Your task to perform on an android device: open app "Walmart Shopping & Grocery" Image 0: 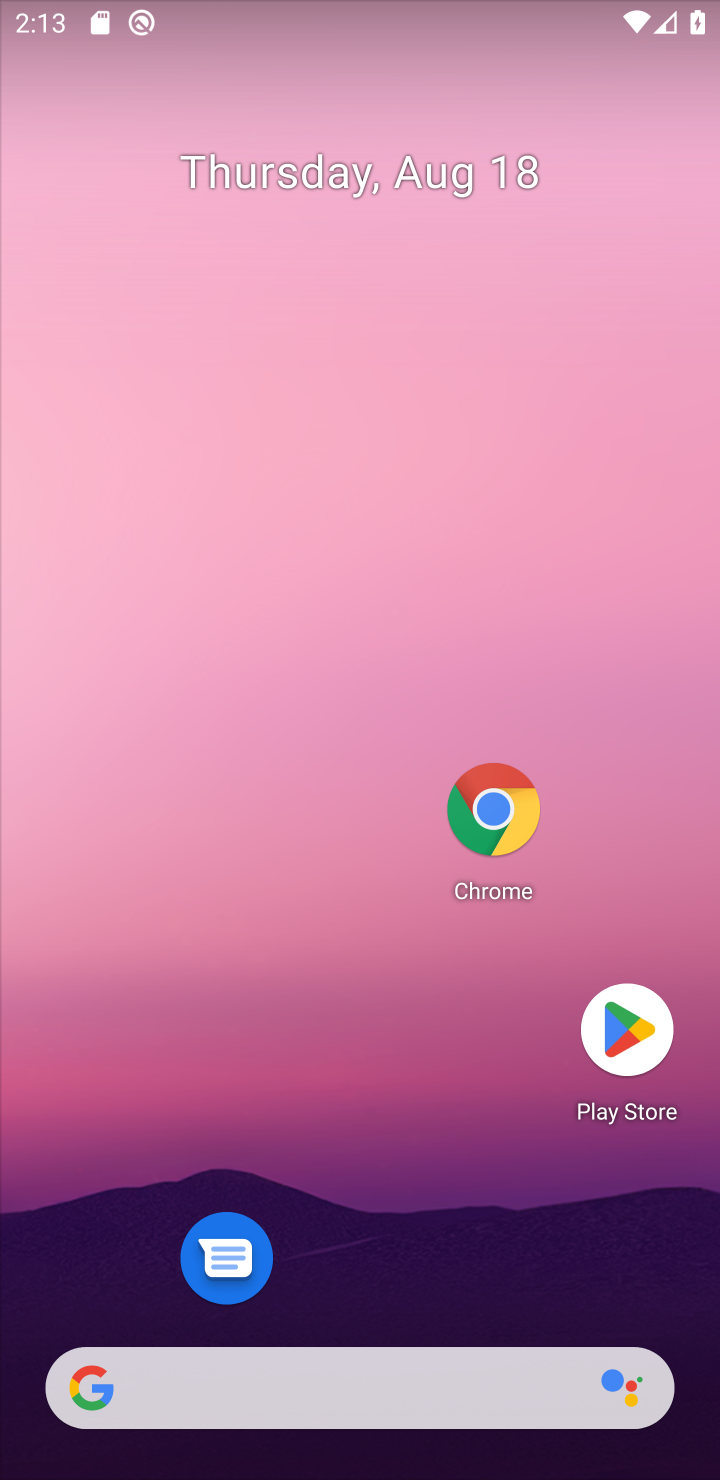
Step 0: drag from (500, 1068) to (460, 287)
Your task to perform on an android device: open app "Walmart Shopping & Grocery" Image 1: 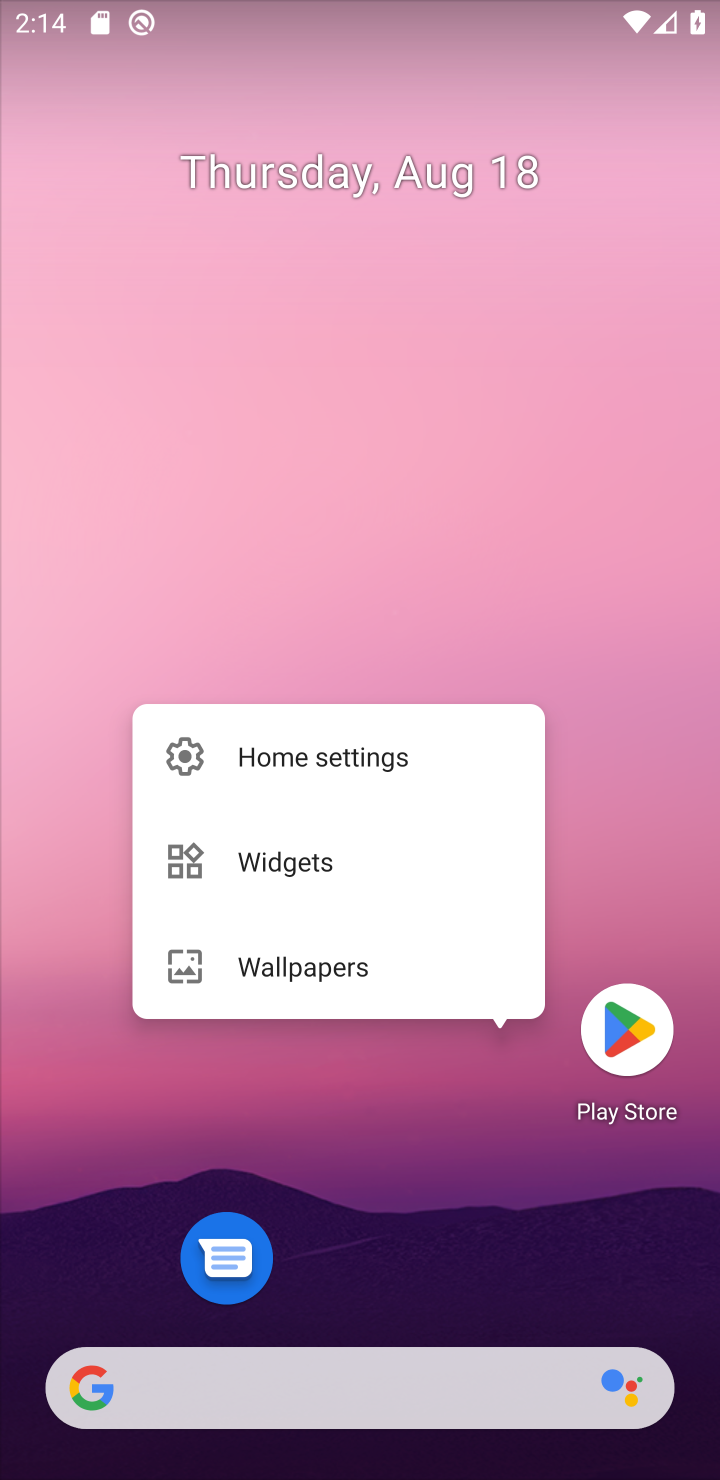
Step 1: click (489, 434)
Your task to perform on an android device: open app "Walmart Shopping & Grocery" Image 2: 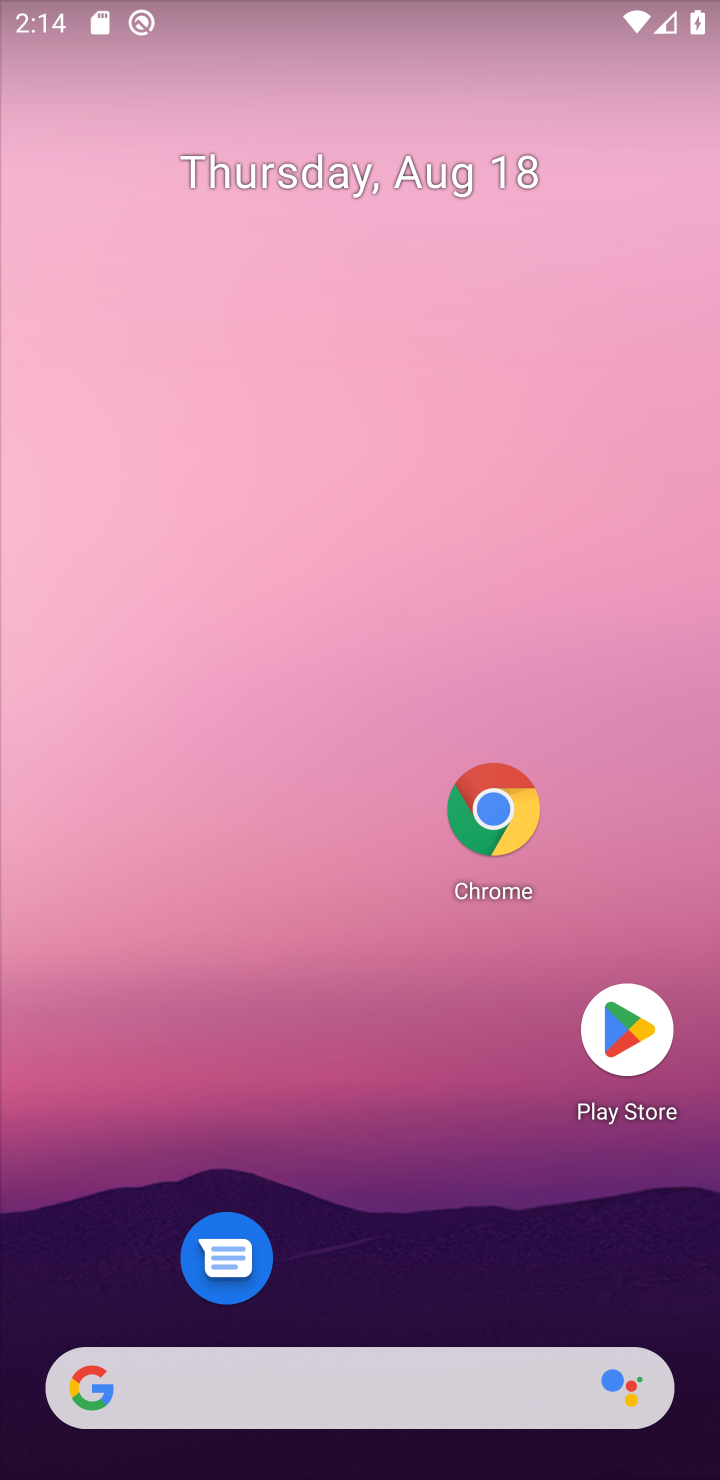
Step 2: click (652, 1045)
Your task to perform on an android device: open app "Walmart Shopping & Grocery" Image 3: 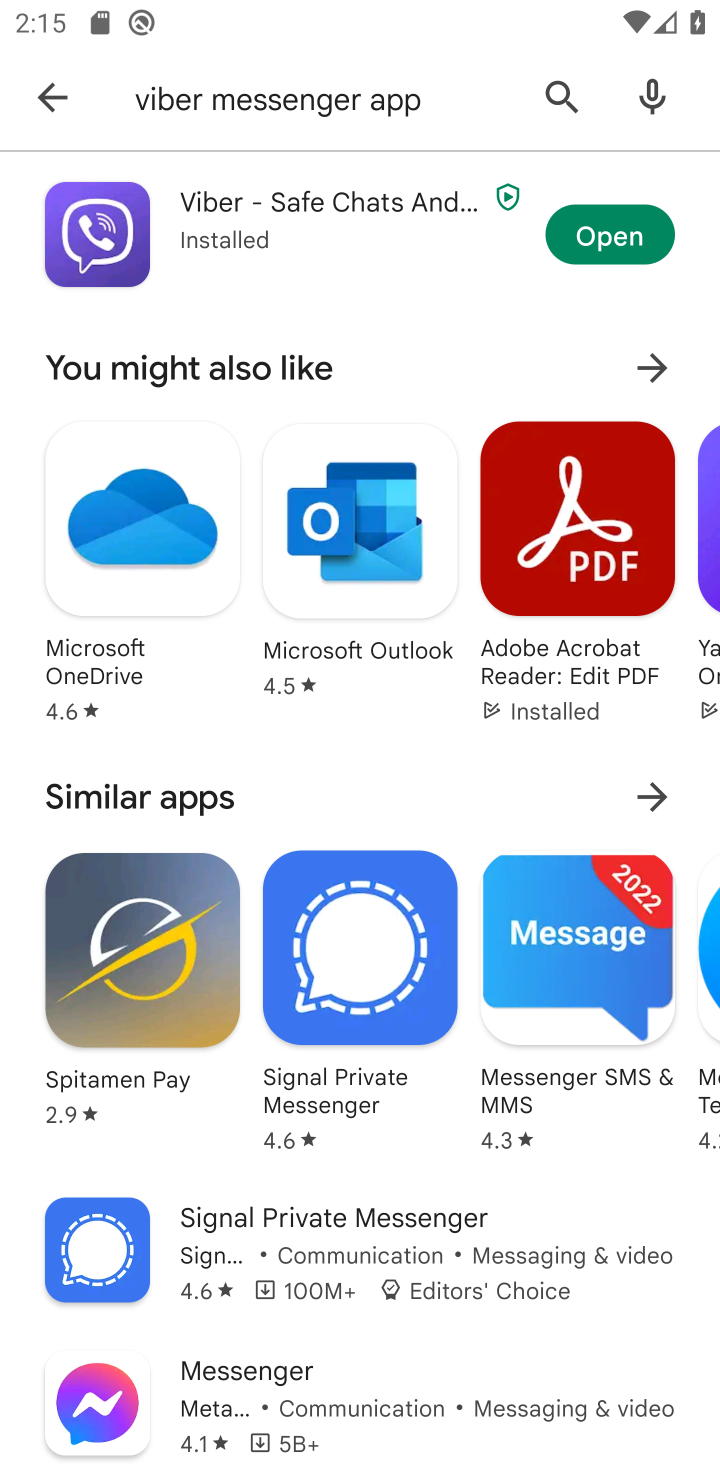
Step 3: click (54, 84)
Your task to perform on an android device: open app "Walmart Shopping & Grocery" Image 4: 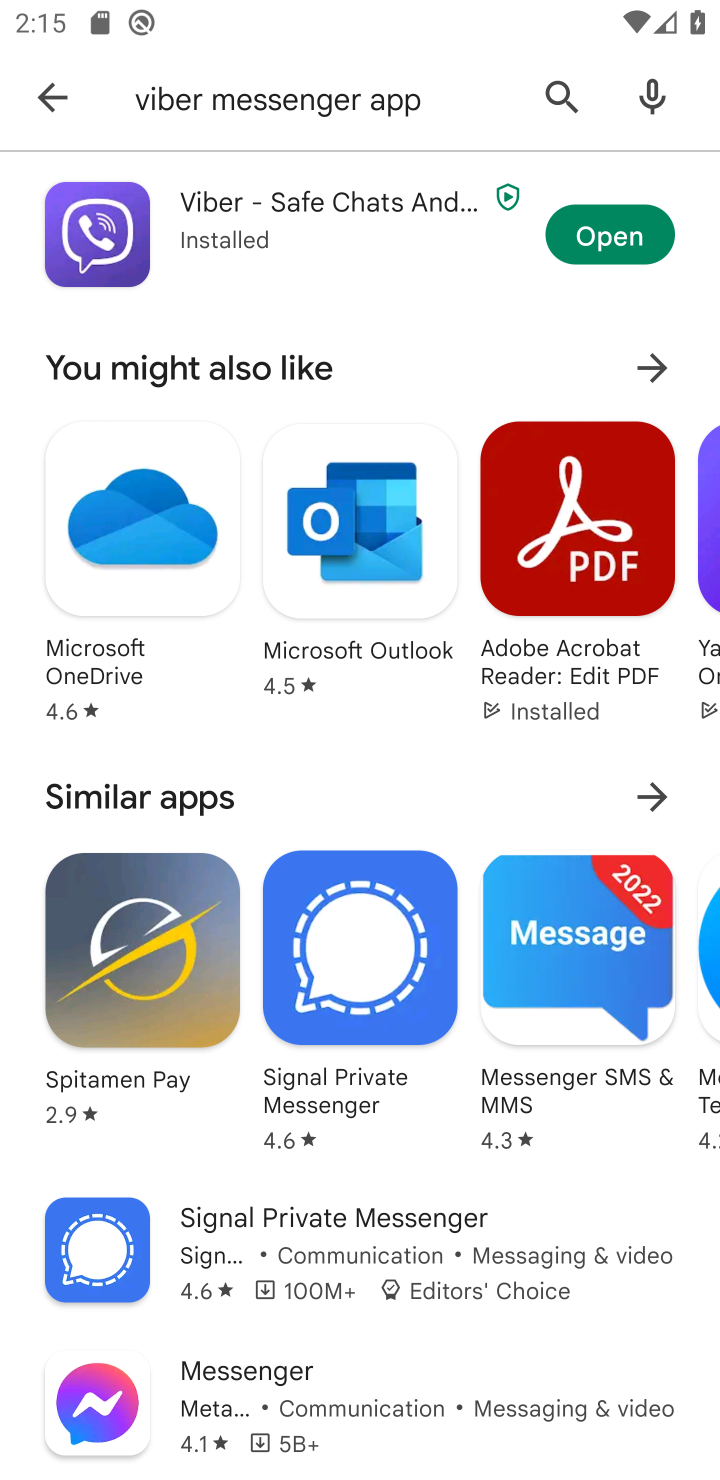
Step 4: click (54, 84)
Your task to perform on an android device: open app "Walmart Shopping & Grocery" Image 5: 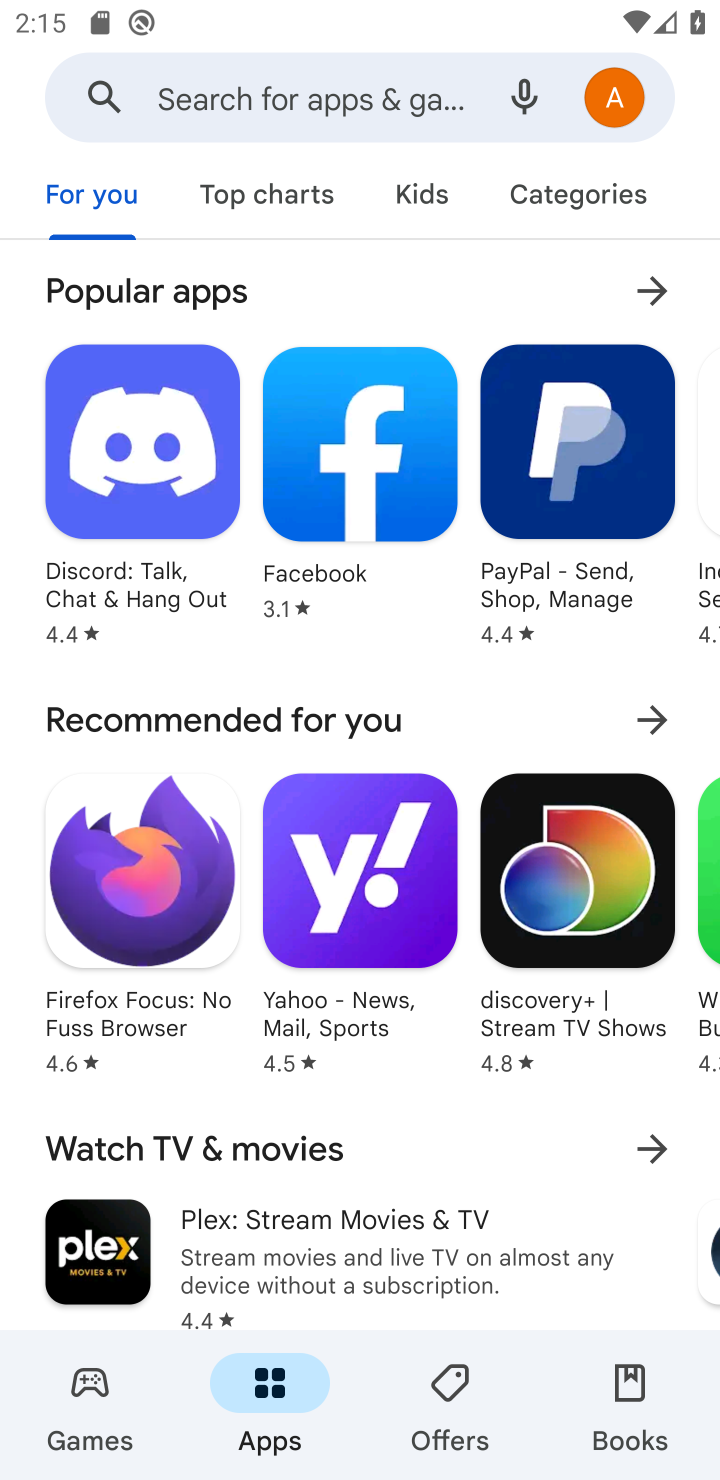
Step 5: click (281, 105)
Your task to perform on an android device: open app "Walmart Shopping & Grocery" Image 6: 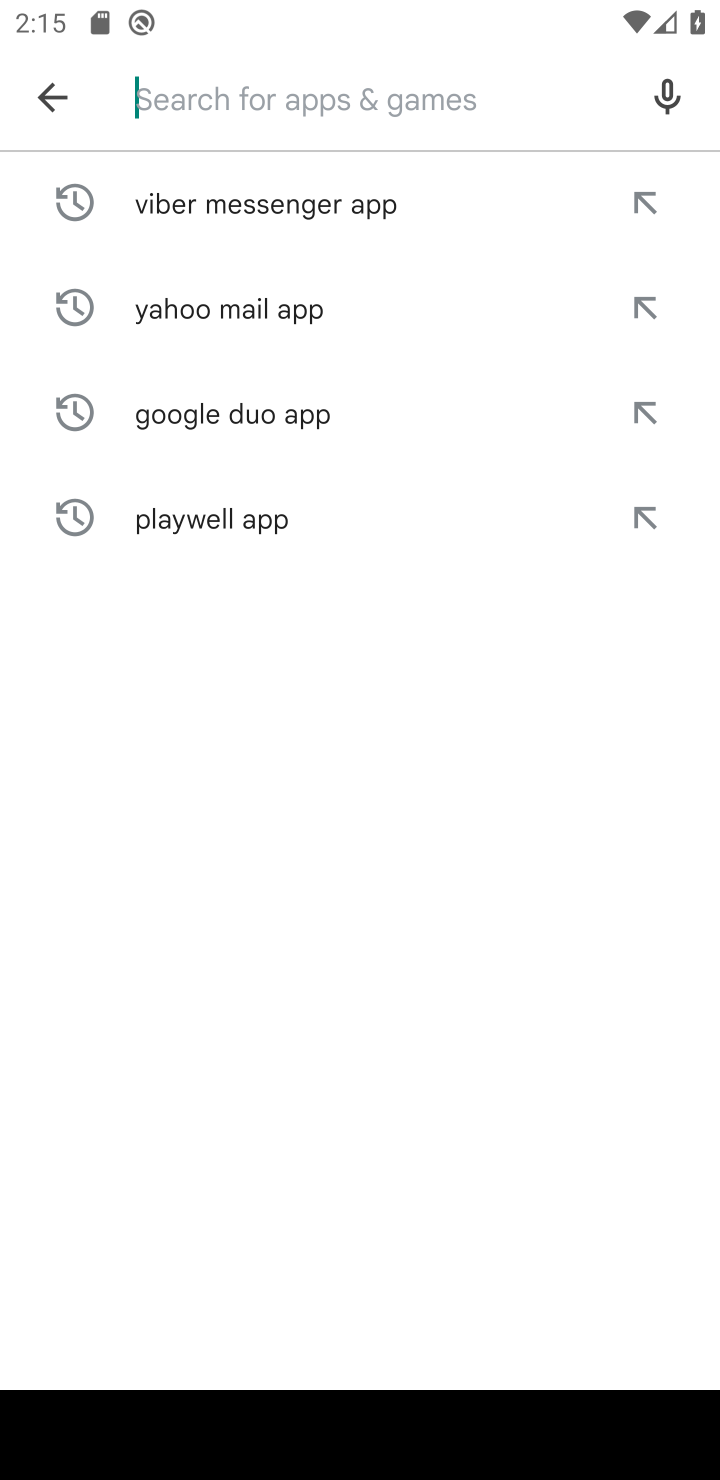
Step 6: type "Walmart Shopping & Grocery "
Your task to perform on an android device: open app "Walmart Shopping & Grocery" Image 7: 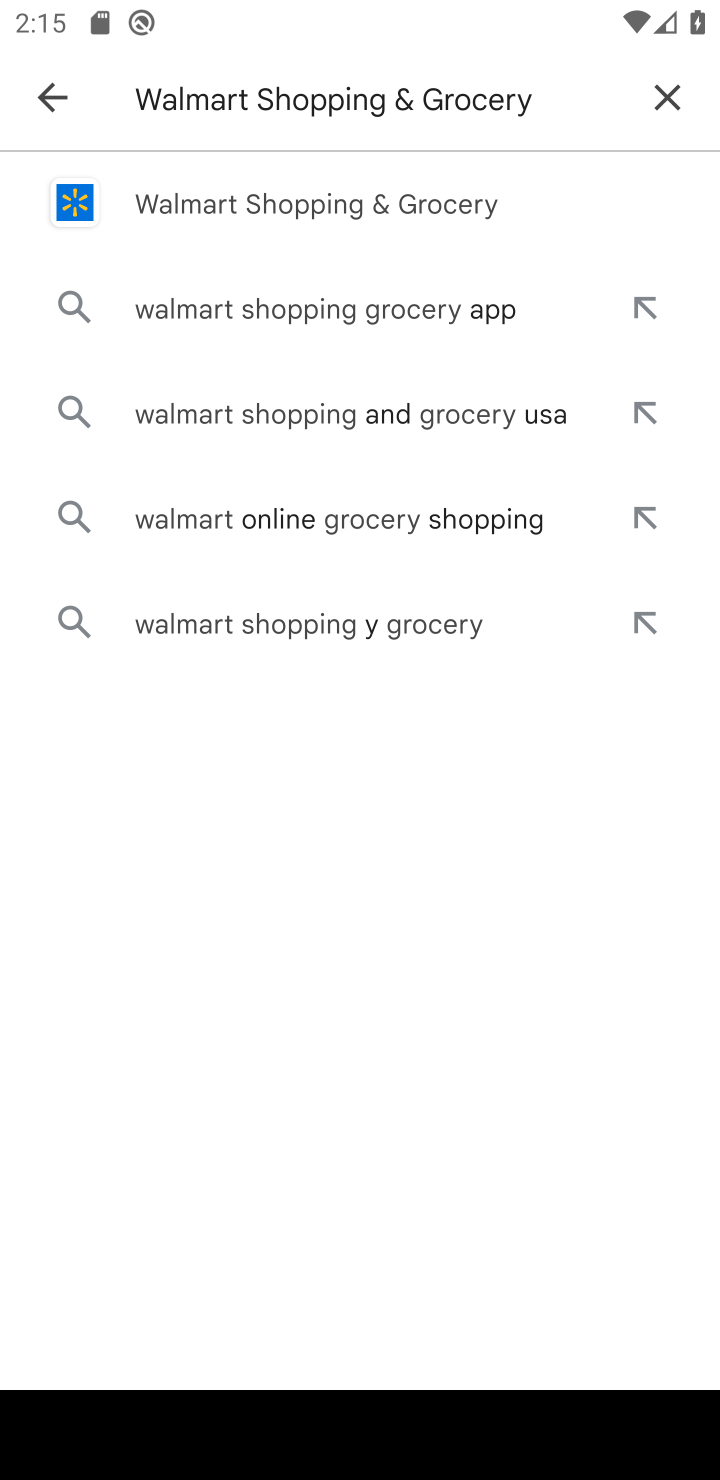
Step 7: click (417, 192)
Your task to perform on an android device: open app "Walmart Shopping & Grocery" Image 8: 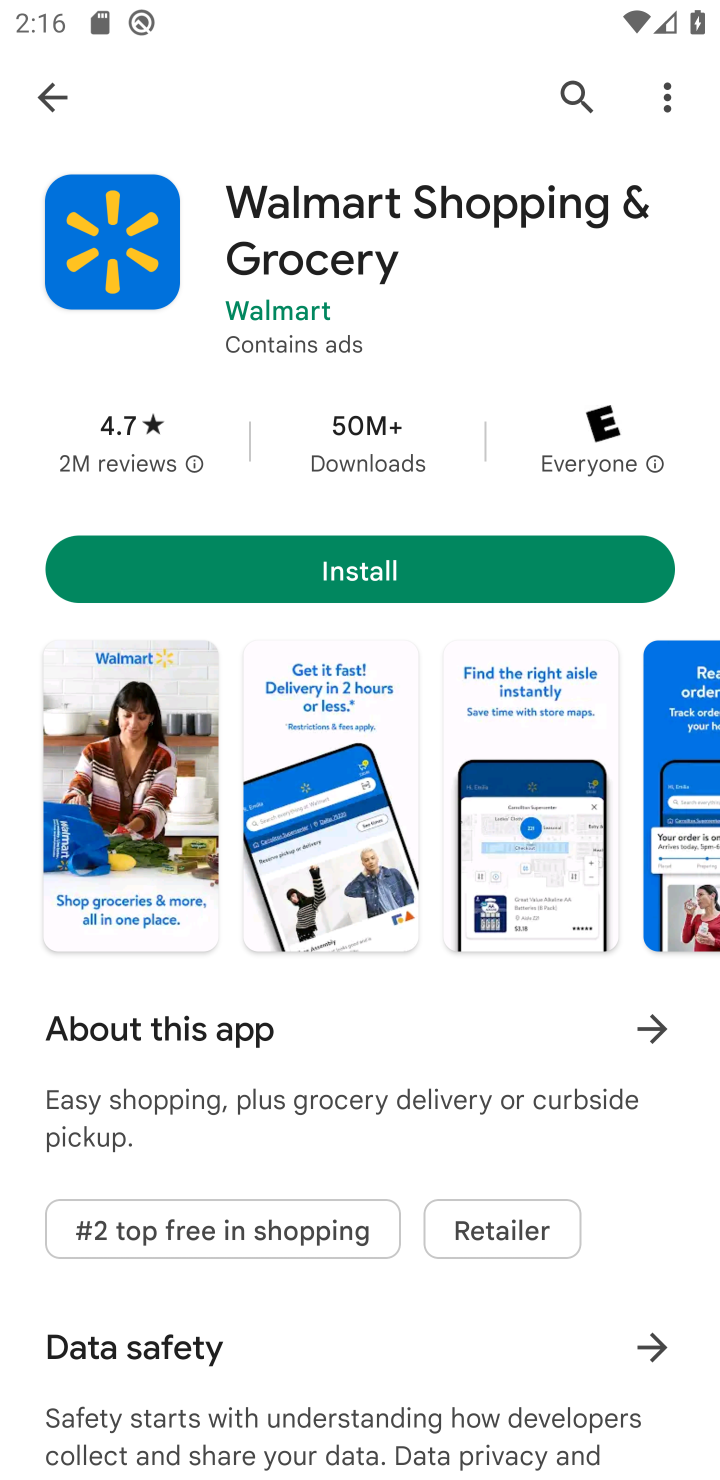
Step 8: click (324, 575)
Your task to perform on an android device: open app "Walmart Shopping & Grocery" Image 9: 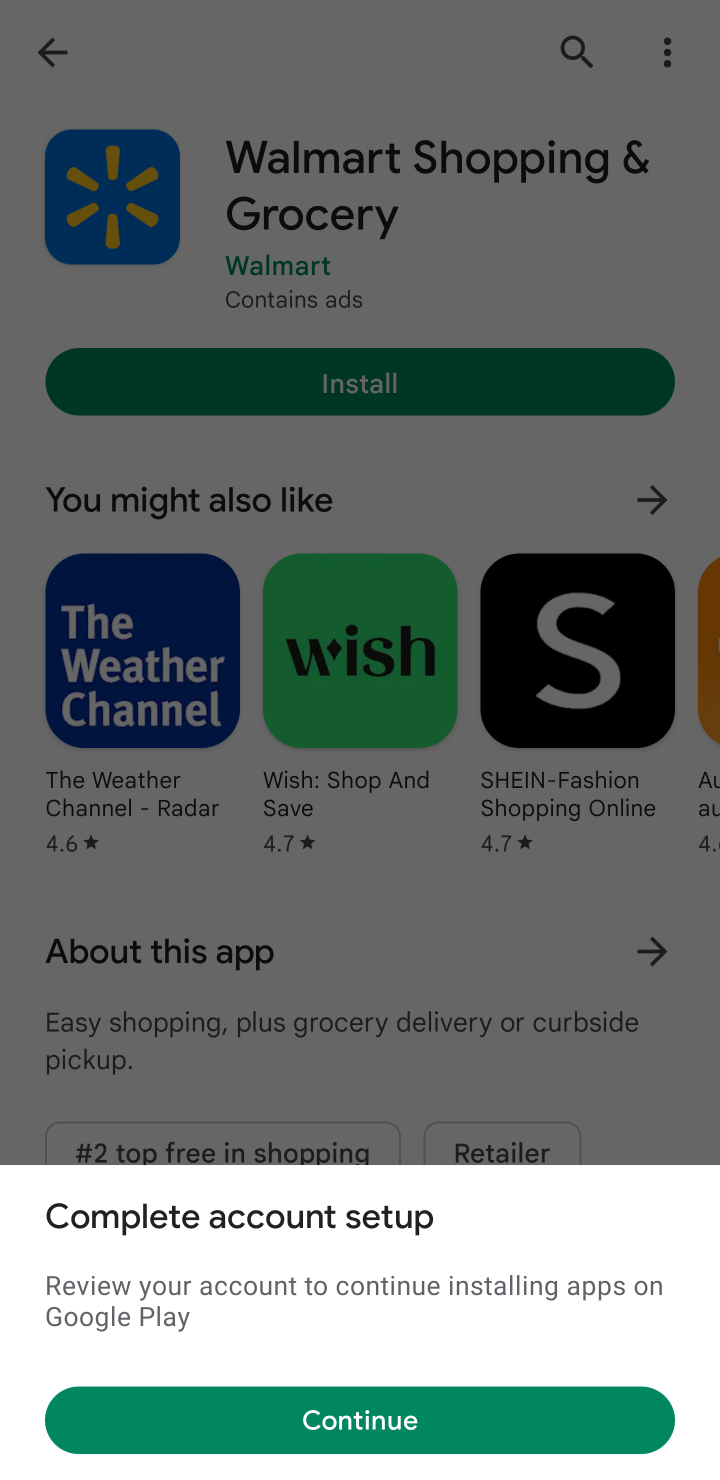
Step 9: task complete